Your task to perform on an android device: turn on translation in the chrome app Image 0: 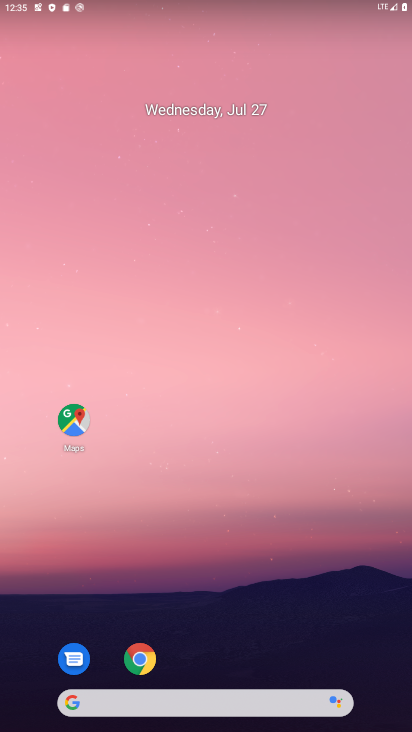
Step 0: drag from (276, 613) to (252, 132)
Your task to perform on an android device: turn on translation in the chrome app Image 1: 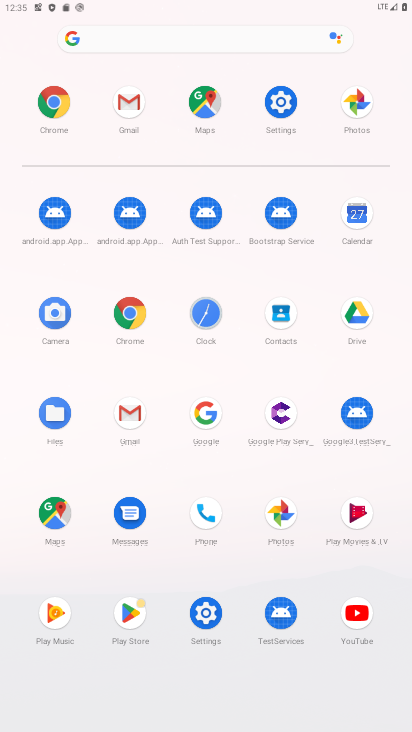
Step 1: click (139, 315)
Your task to perform on an android device: turn on translation in the chrome app Image 2: 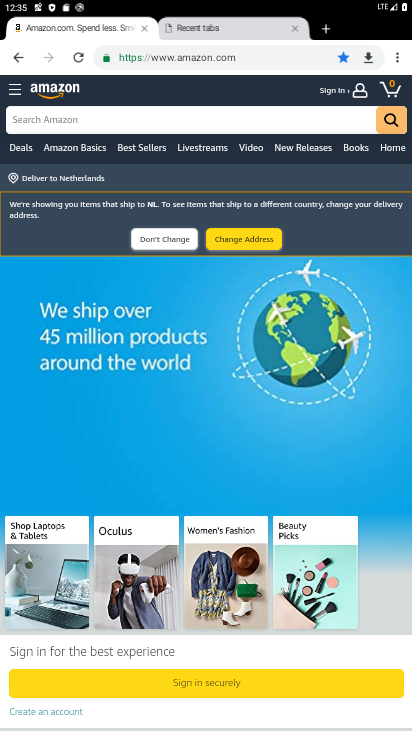
Step 2: click (396, 63)
Your task to perform on an android device: turn on translation in the chrome app Image 3: 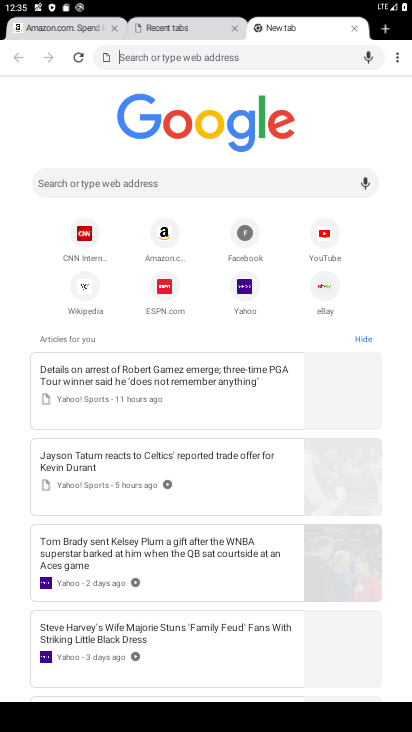
Step 3: click (398, 59)
Your task to perform on an android device: turn on translation in the chrome app Image 4: 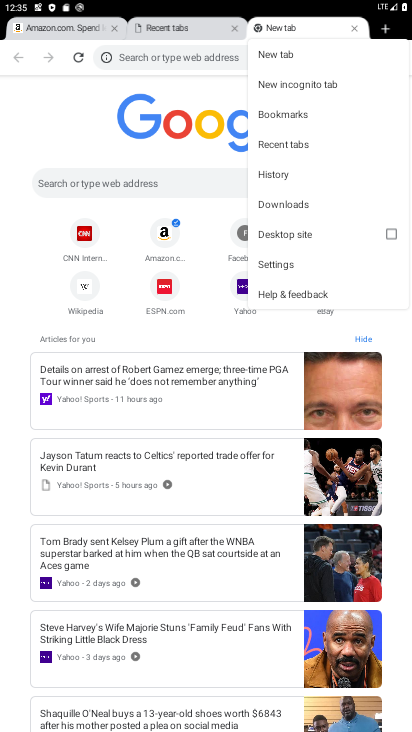
Step 4: click (313, 262)
Your task to perform on an android device: turn on translation in the chrome app Image 5: 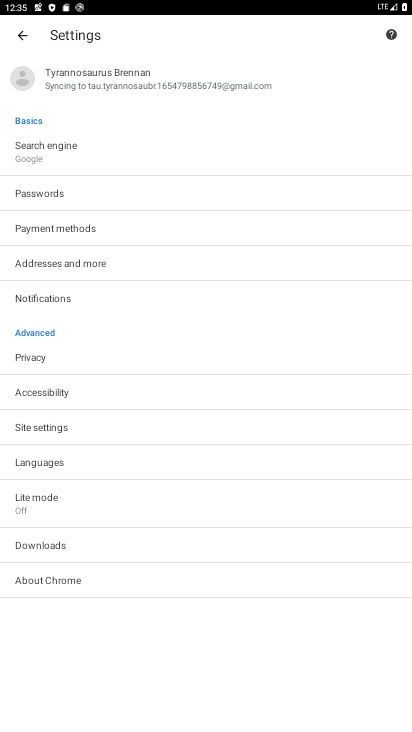
Step 5: click (77, 469)
Your task to perform on an android device: turn on translation in the chrome app Image 6: 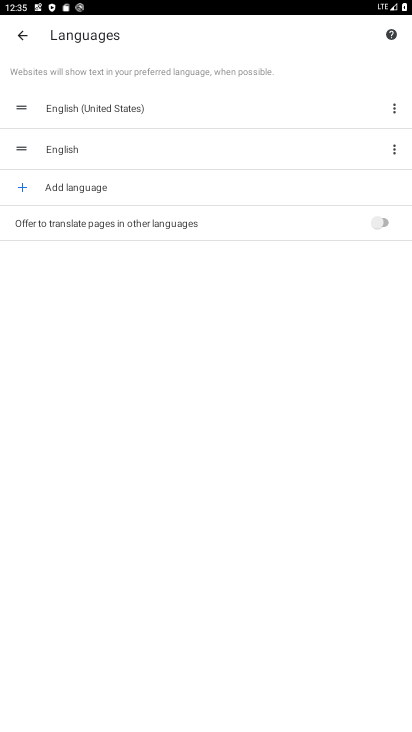
Step 6: click (379, 223)
Your task to perform on an android device: turn on translation in the chrome app Image 7: 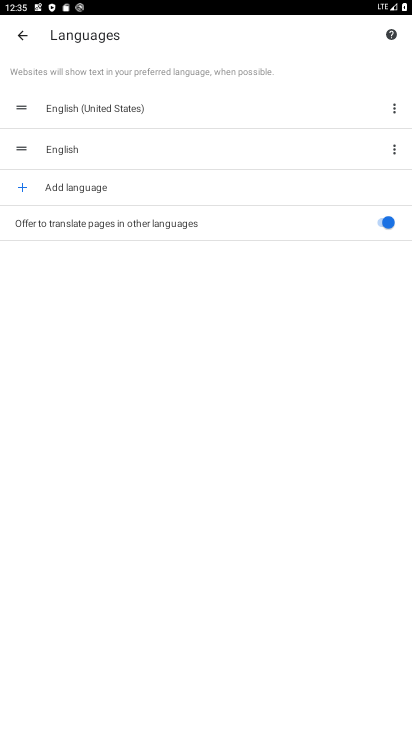
Step 7: task complete